Your task to perform on an android device: Open Google Maps and go to "Timeline" Image 0: 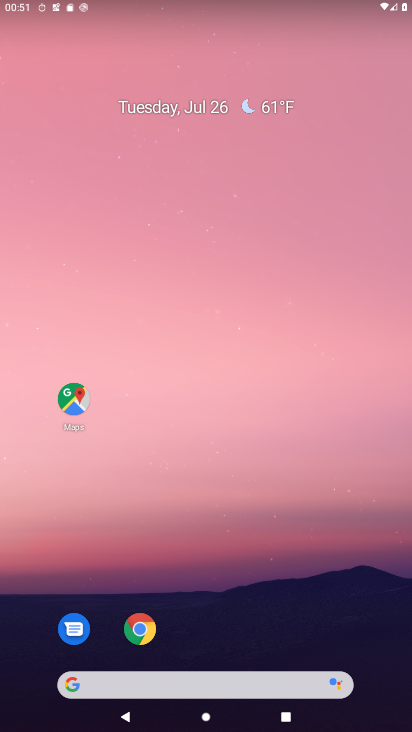
Step 0: click (189, 632)
Your task to perform on an android device: Open Google Maps and go to "Timeline" Image 1: 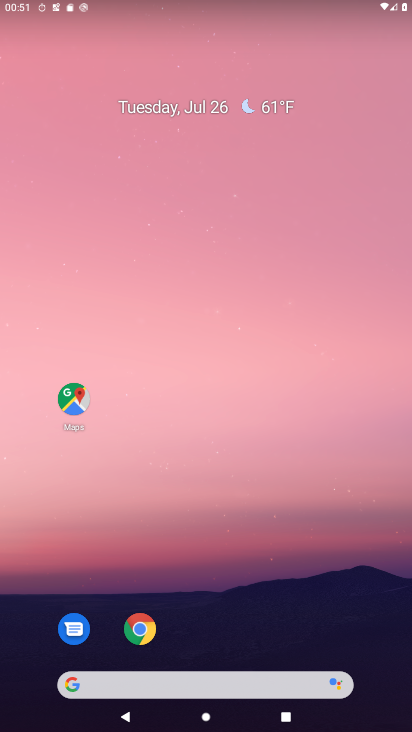
Step 1: click (66, 393)
Your task to perform on an android device: Open Google Maps and go to "Timeline" Image 2: 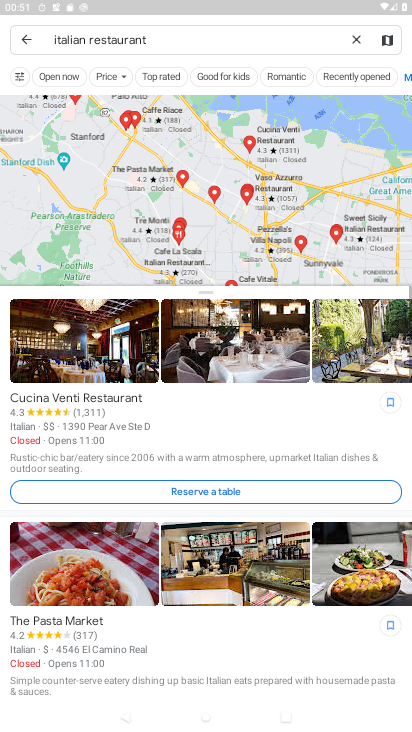
Step 2: click (20, 47)
Your task to perform on an android device: Open Google Maps and go to "Timeline" Image 3: 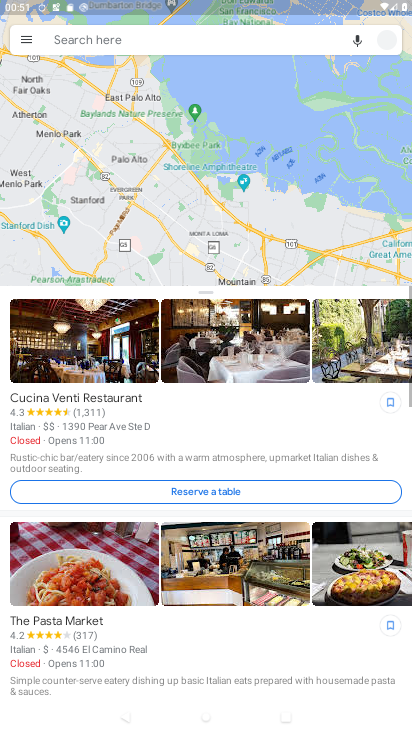
Step 3: click (20, 47)
Your task to perform on an android device: Open Google Maps and go to "Timeline" Image 4: 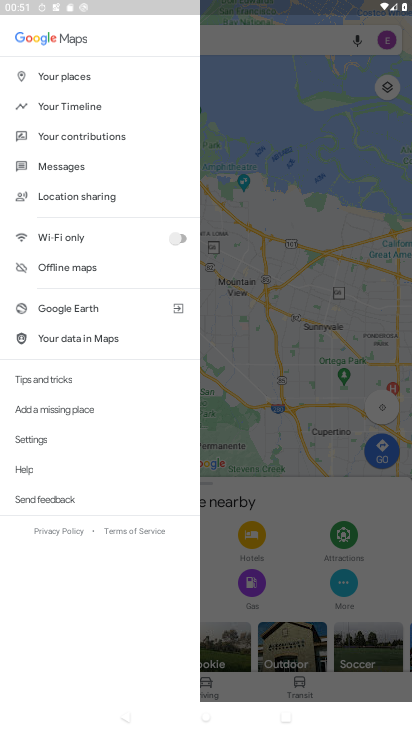
Step 4: click (76, 106)
Your task to perform on an android device: Open Google Maps and go to "Timeline" Image 5: 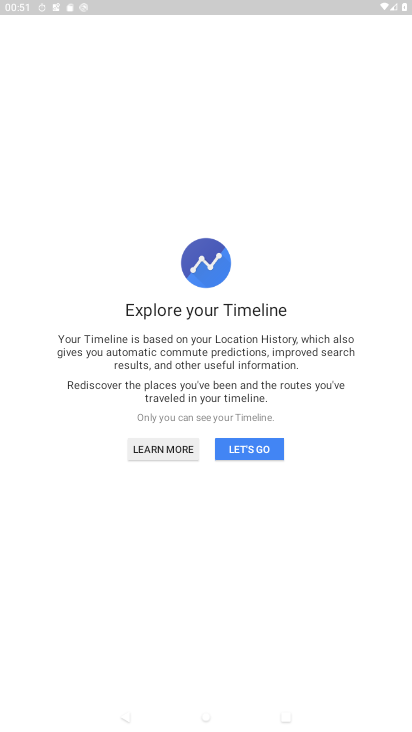
Step 5: task complete